Your task to perform on an android device: Check the news Image 0: 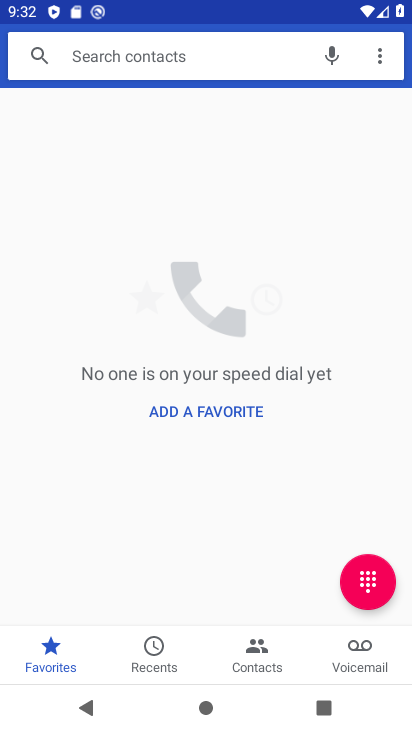
Step 0: press home button
Your task to perform on an android device: Check the news Image 1: 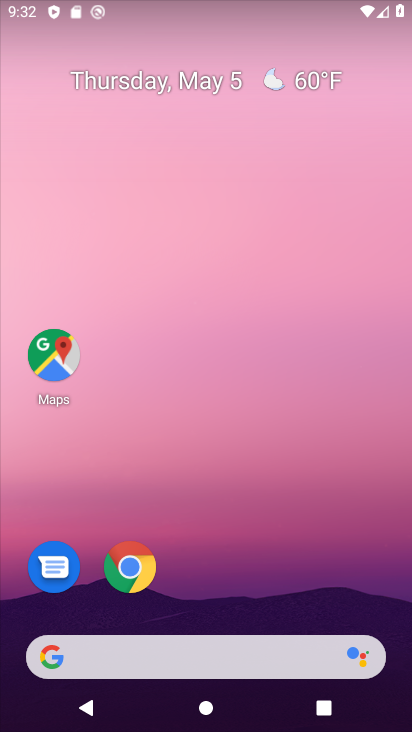
Step 1: drag from (209, 583) to (185, 199)
Your task to perform on an android device: Check the news Image 2: 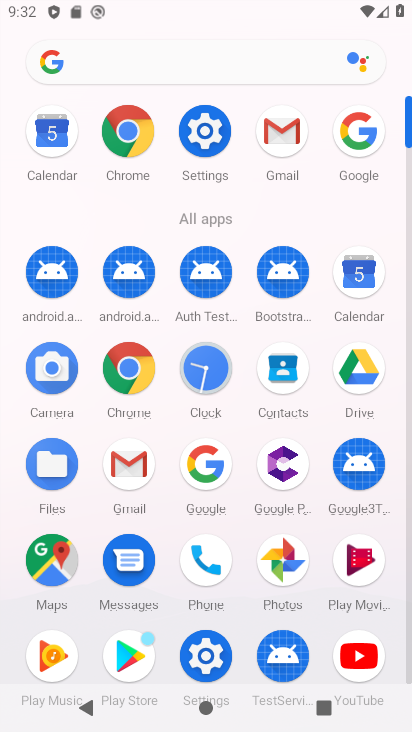
Step 2: click (194, 463)
Your task to perform on an android device: Check the news Image 3: 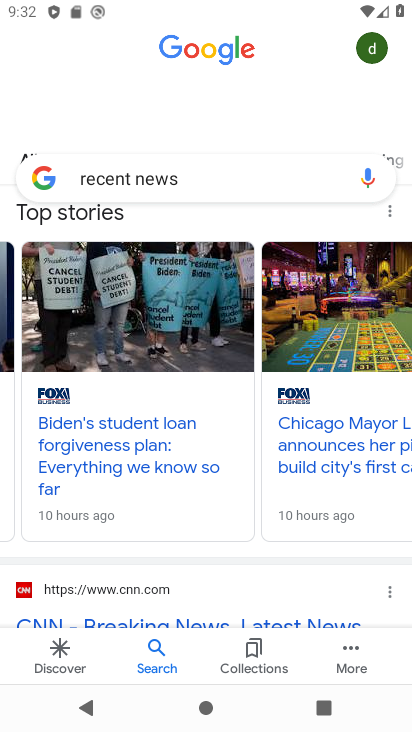
Step 3: click (246, 170)
Your task to perform on an android device: Check the news Image 4: 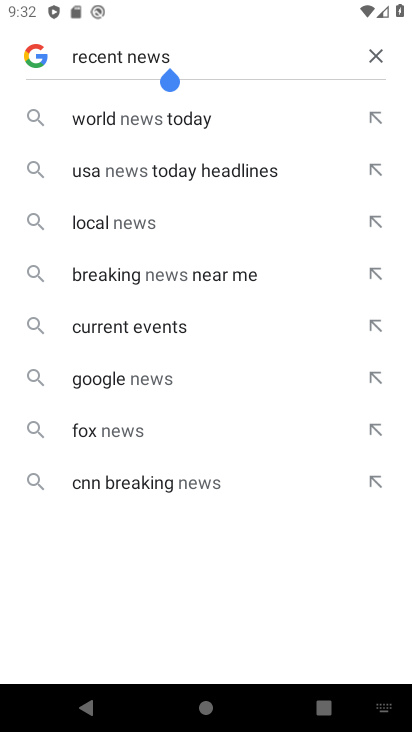
Step 4: click (374, 62)
Your task to perform on an android device: Check the news Image 5: 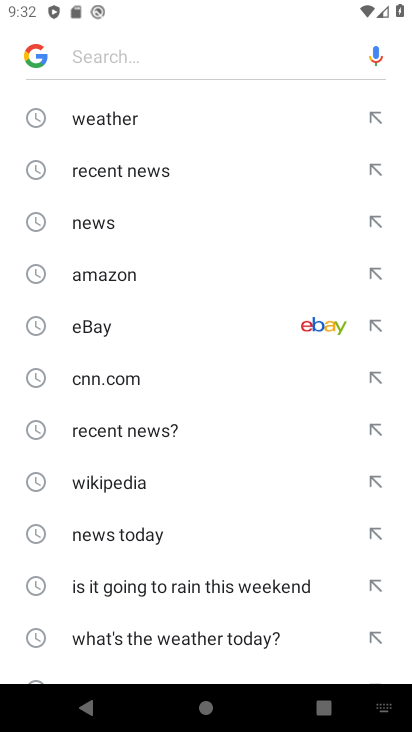
Step 5: type "news"
Your task to perform on an android device: Check the news Image 6: 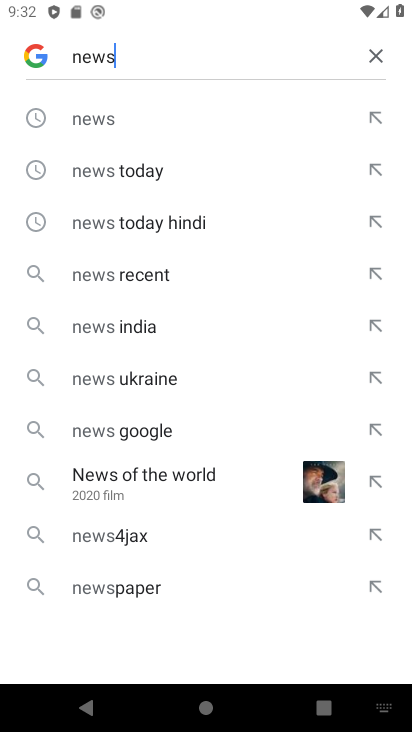
Step 6: click (130, 122)
Your task to perform on an android device: Check the news Image 7: 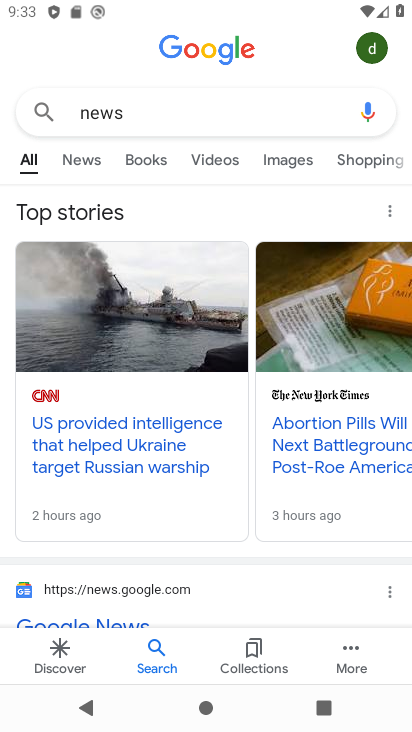
Step 7: task complete